Your task to perform on an android device: open app "Lyft - Rideshare, Bikes, Scooters & Transit" (install if not already installed), go to login, and select forgot password Image 0: 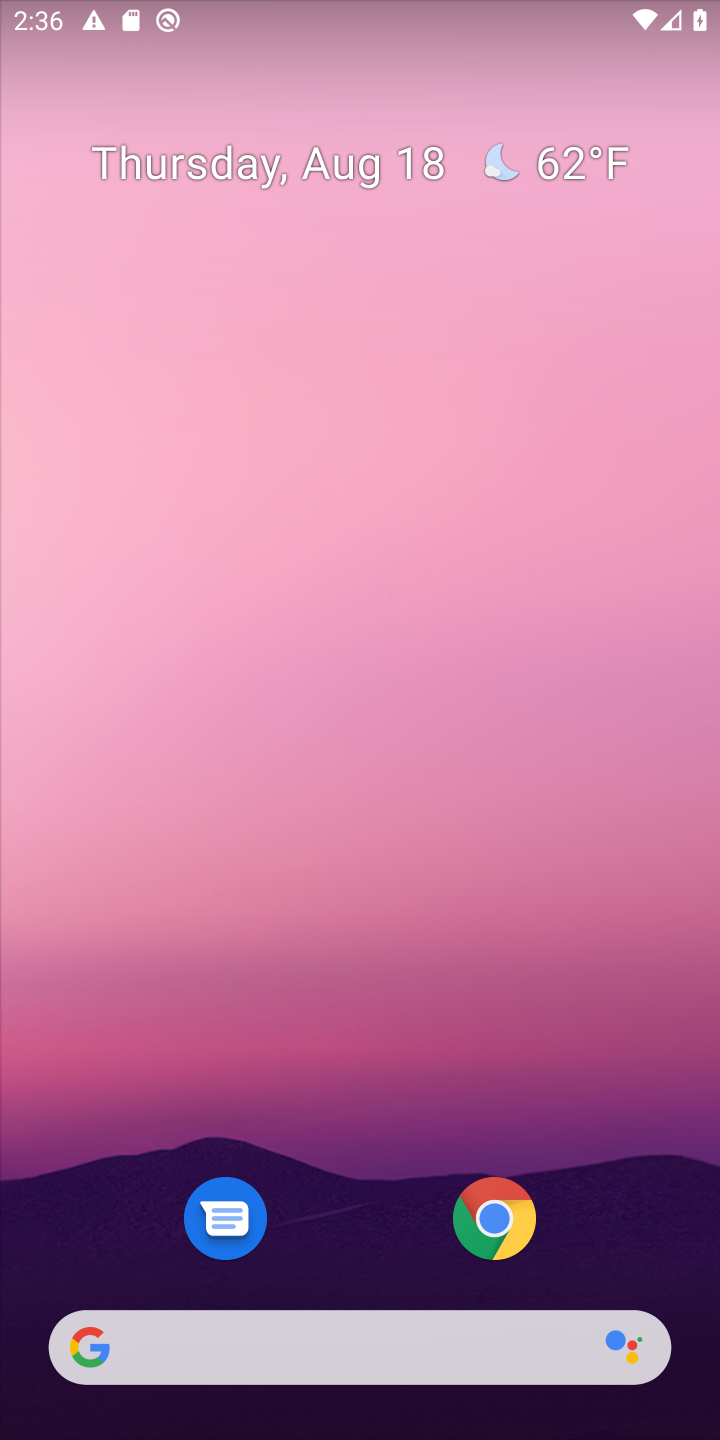
Step 0: drag from (392, 824) to (395, 353)
Your task to perform on an android device: open app "Lyft - Rideshare, Bikes, Scooters & Transit" (install if not already installed), go to login, and select forgot password Image 1: 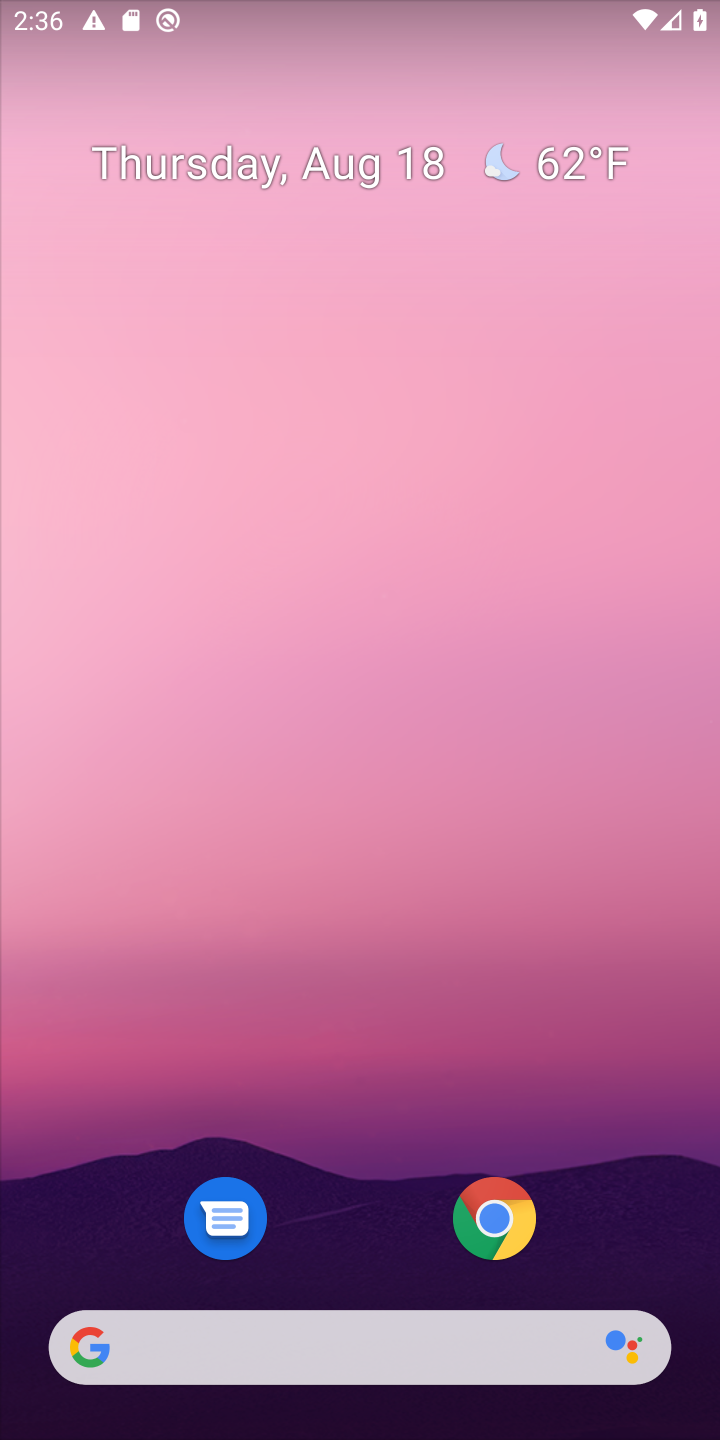
Step 1: drag from (341, 735) to (339, 104)
Your task to perform on an android device: open app "Lyft - Rideshare, Bikes, Scooters & Transit" (install if not already installed), go to login, and select forgot password Image 2: 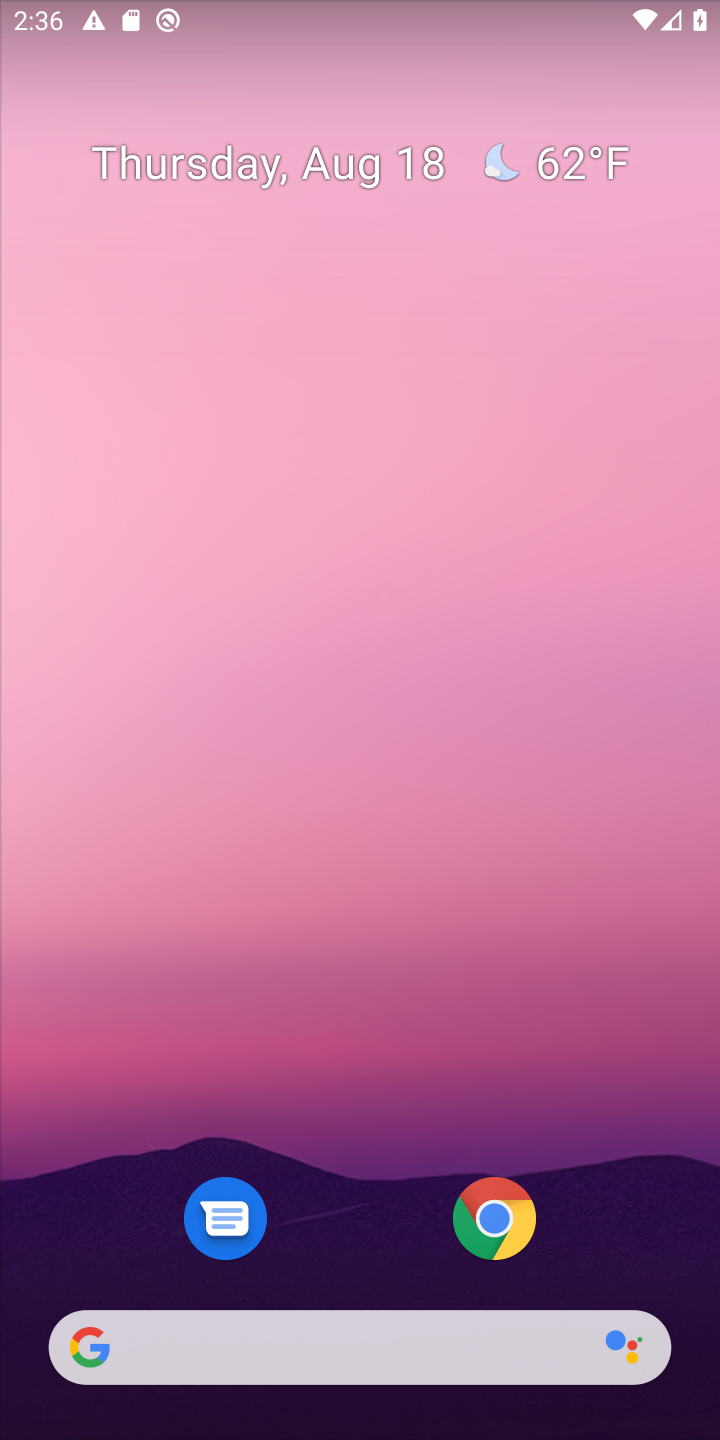
Step 2: drag from (336, 1133) to (352, 371)
Your task to perform on an android device: open app "Lyft - Rideshare, Bikes, Scooters & Transit" (install if not already installed), go to login, and select forgot password Image 3: 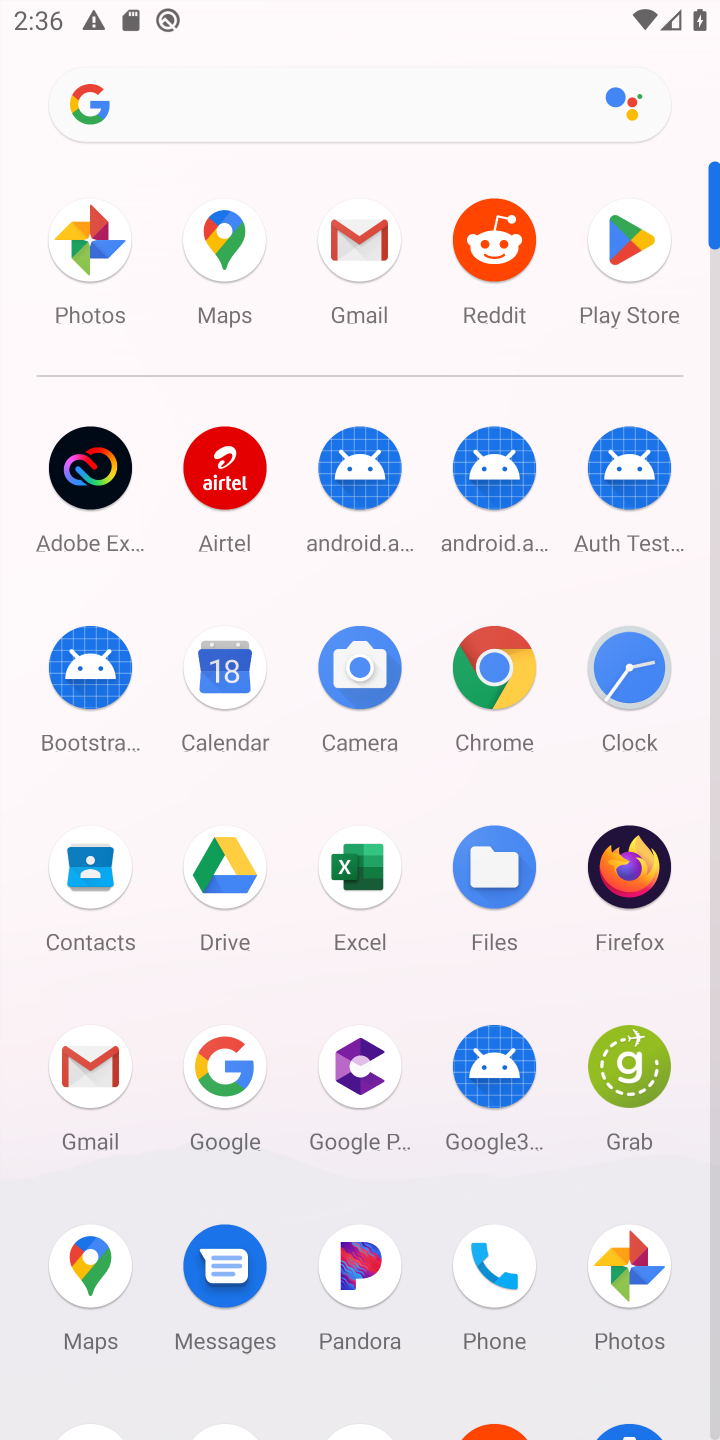
Step 3: click (616, 261)
Your task to perform on an android device: open app "Lyft - Rideshare, Bikes, Scooters & Transit" (install if not already installed), go to login, and select forgot password Image 4: 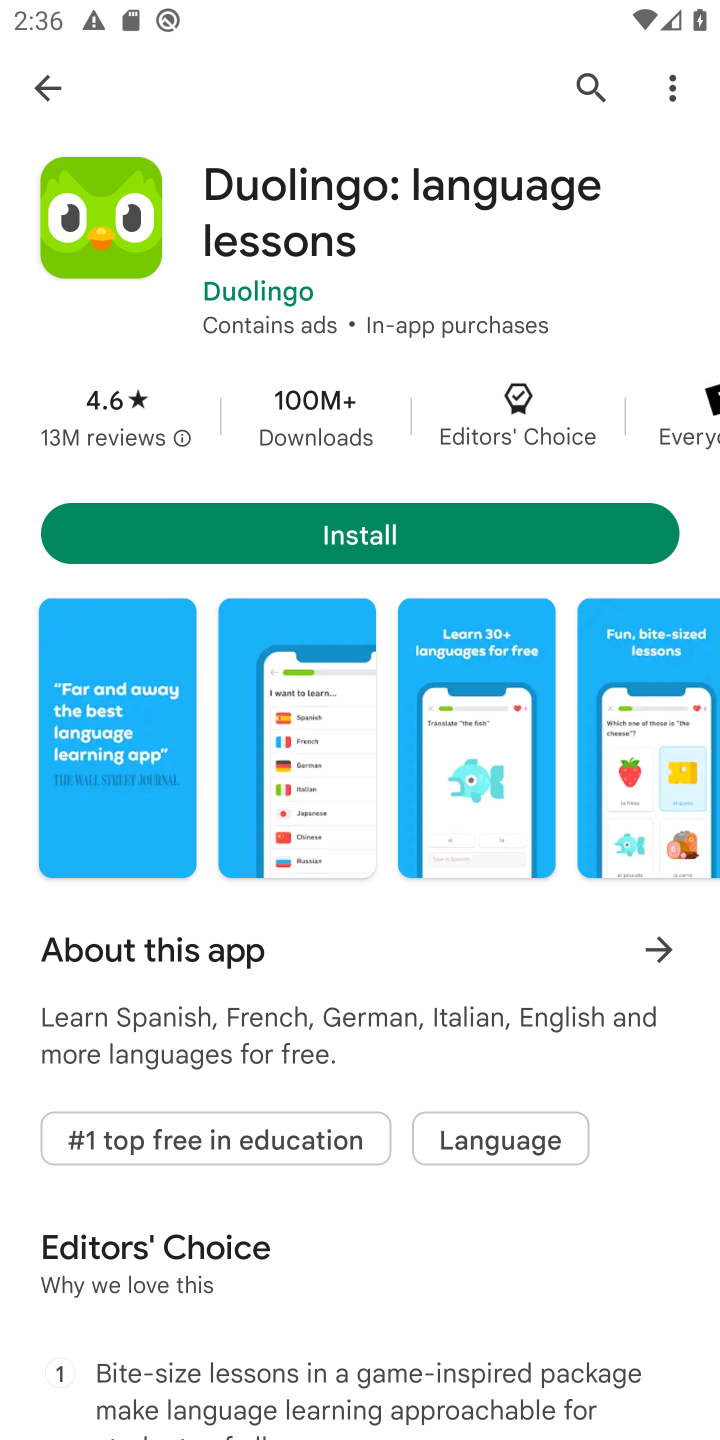
Step 4: click (582, 86)
Your task to perform on an android device: open app "Lyft - Rideshare, Bikes, Scooters & Transit" (install if not already installed), go to login, and select forgot password Image 5: 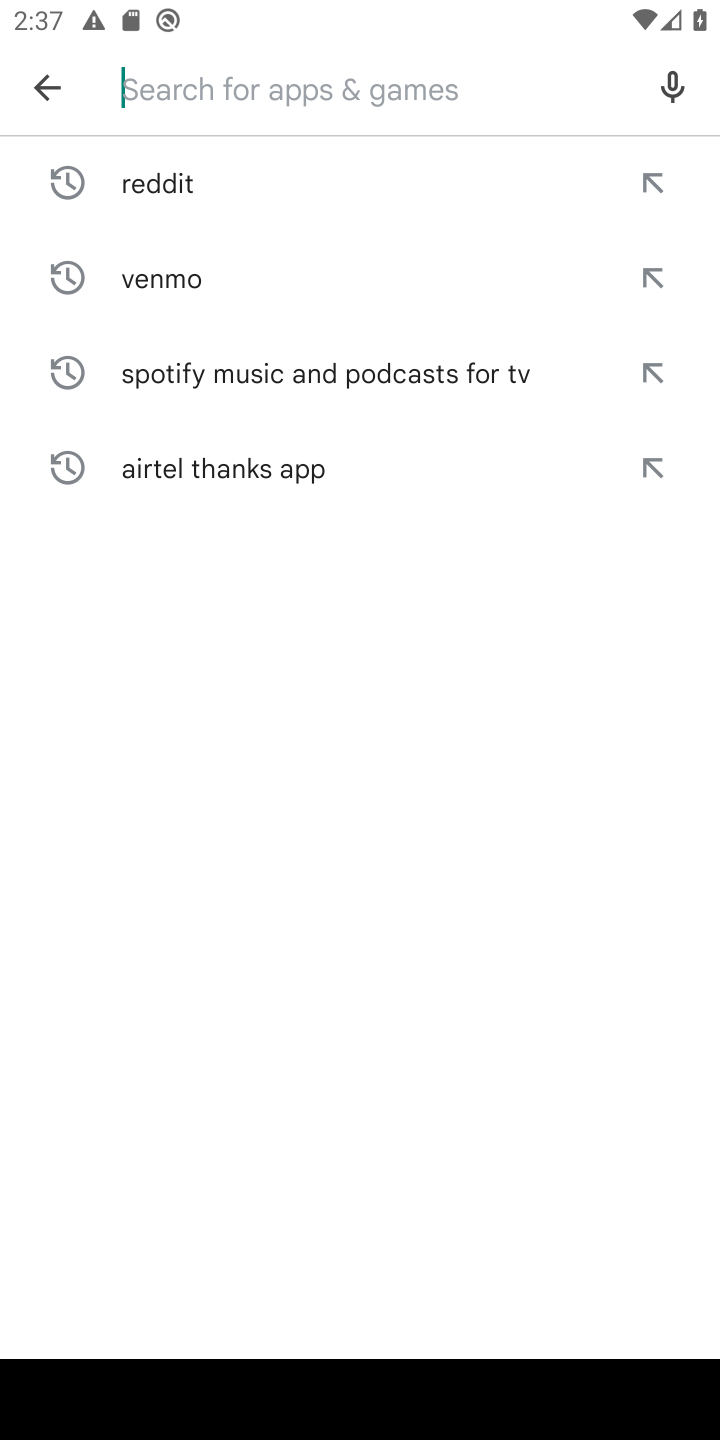
Step 5: type "Lyft"
Your task to perform on an android device: open app "Lyft - Rideshare, Bikes, Scooters & Transit" (install if not already installed), go to login, and select forgot password Image 6: 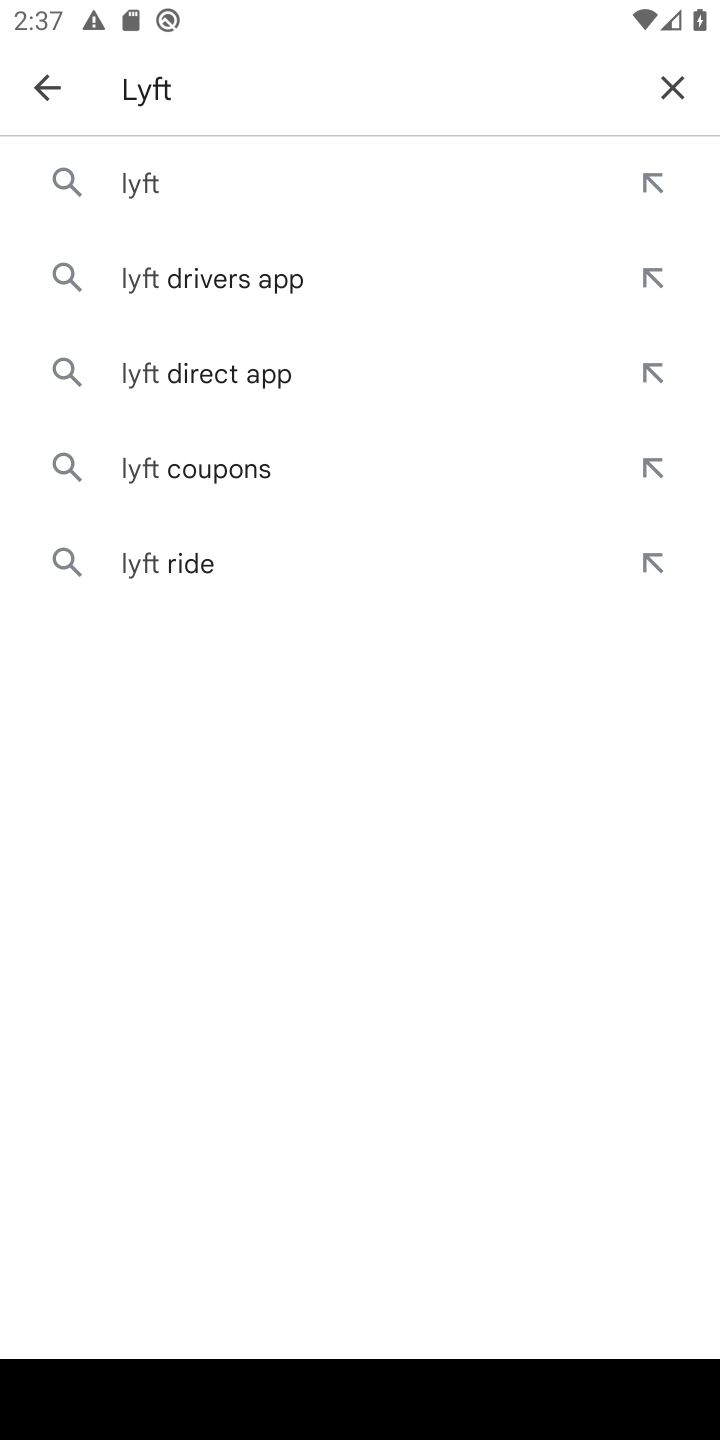
Step 6: click (175, 165)
Your task to perform on an android device: open app "Lyft - Rideshare, Bikes, Scooters & Transit" (install if not already installed), go to login, and select forgot password Image 7: 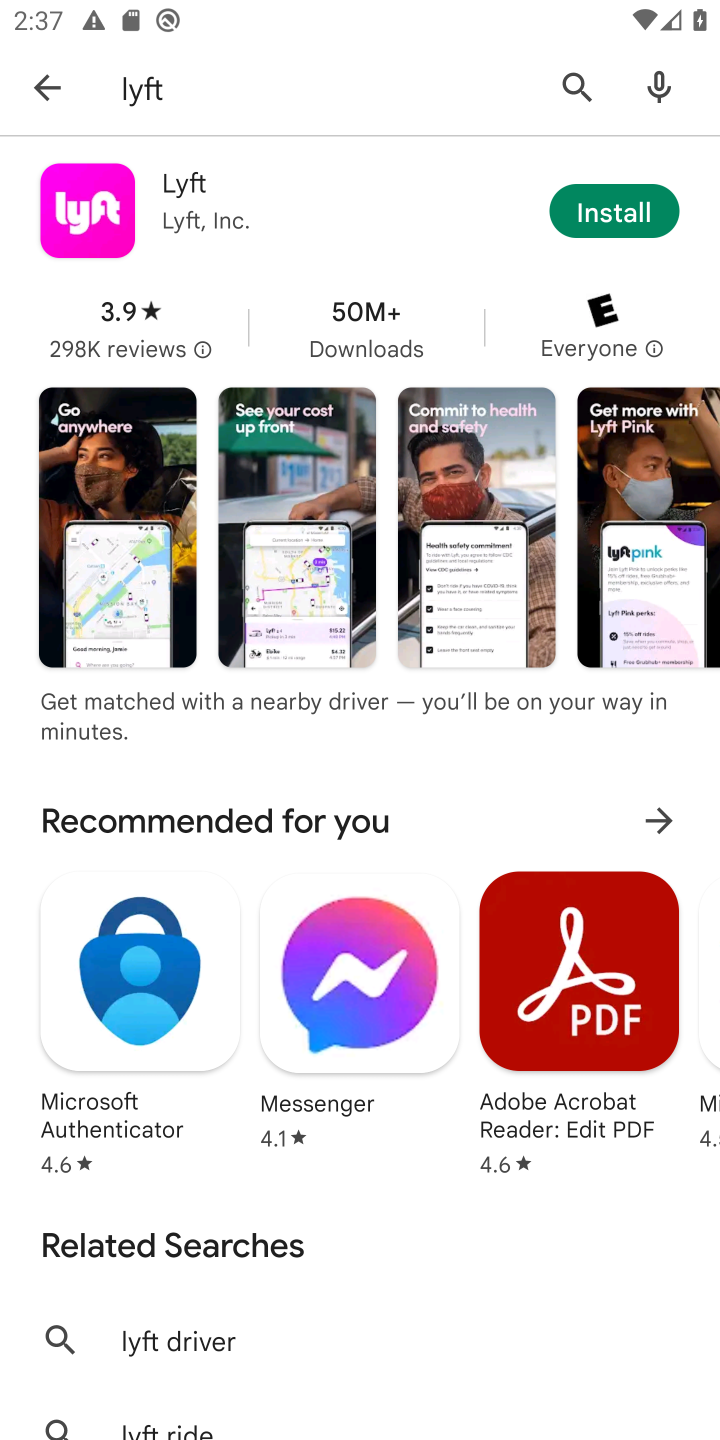
Step 7: click (622, 224)
Your task to perform on an android device: open app "Lyft - Rideshare, Bikes, Scooters & Transit" (install if not already installed), go to login, and select forgot password Image 8: 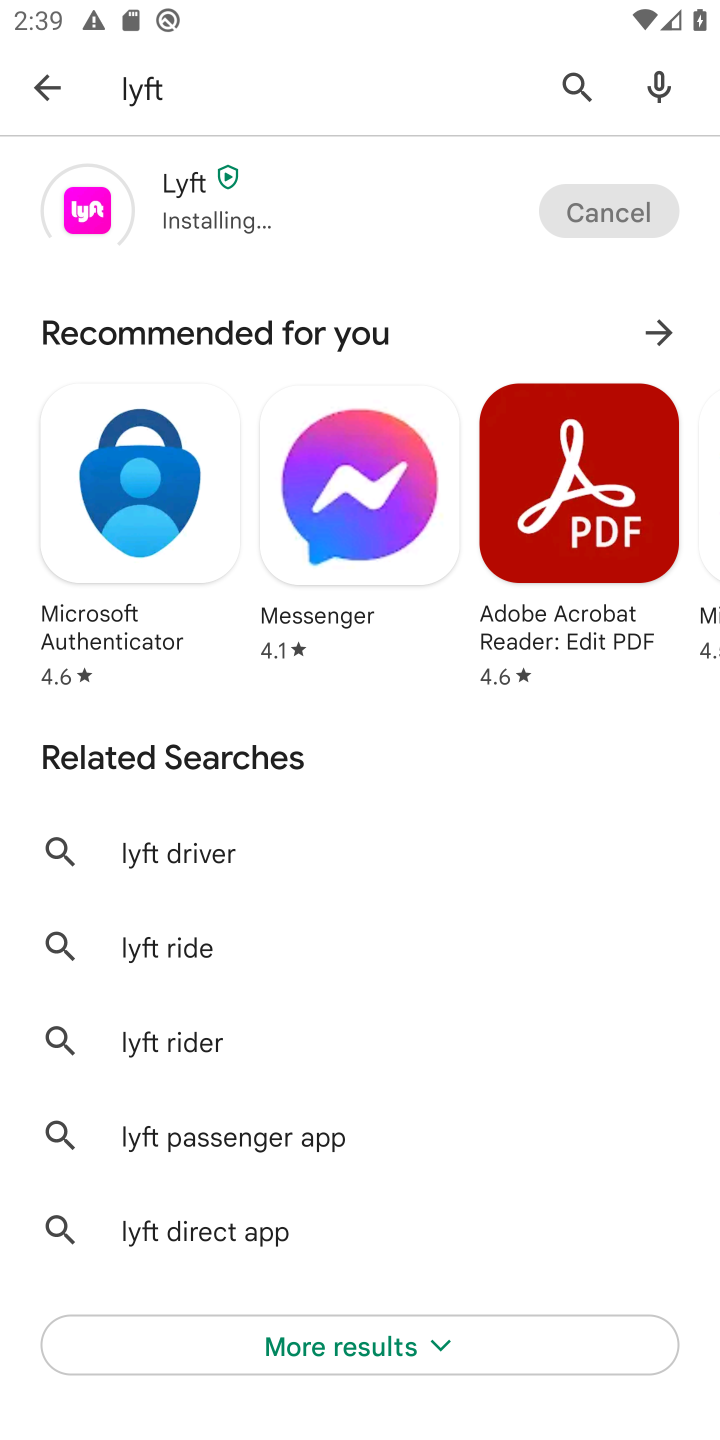
Step 8: task complete